Your task to perform on an android device: turn off priority inbox in the gmail app Image 0: 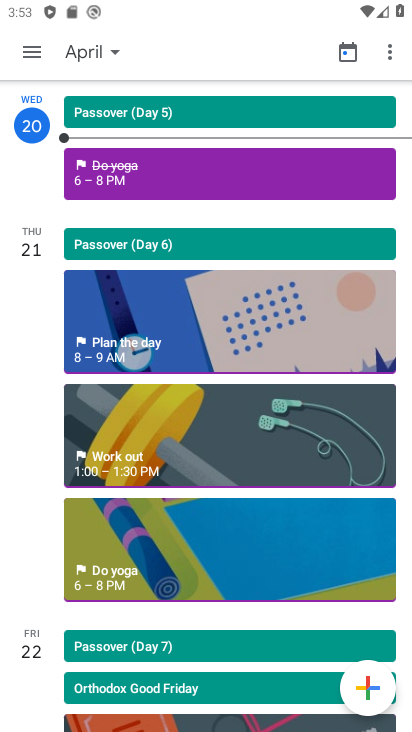
Step 0: press home button
Your task to perform on an android device: turn off priority inbox in the gmail app Image 1: 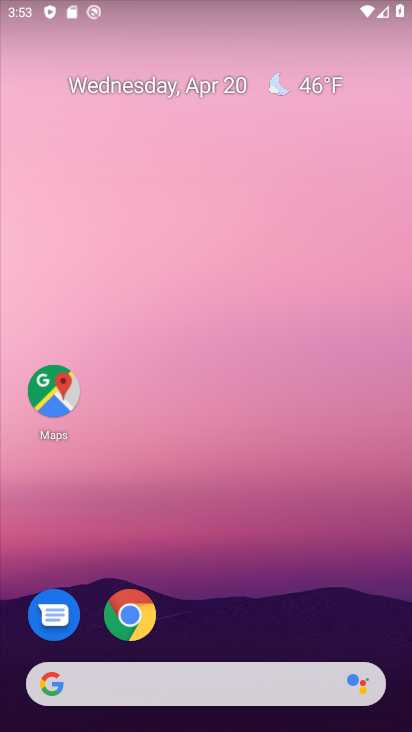
Step 1: drag from (381, 482) to (408, 173)
Your task to perform on an android device: turn off priority inbox in the gmail app Image 2: 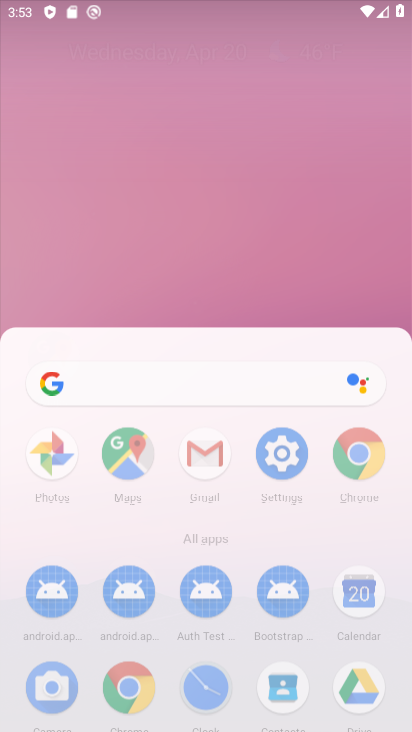
Step 2: drag from (282, 372) to (360, 2)
Your task to perform on an android device: turn off priority inbox in the gmail app Image 3: 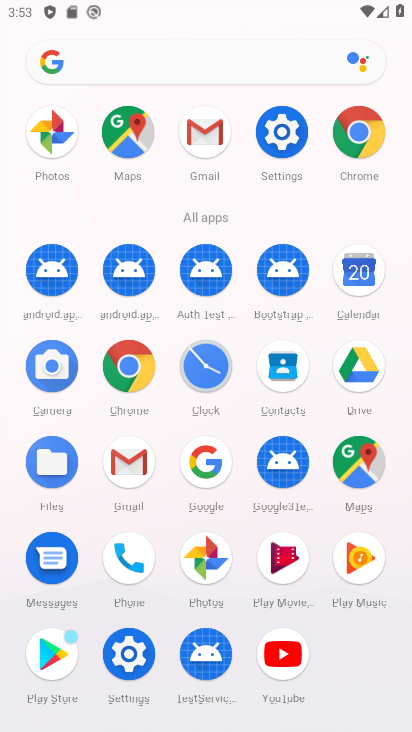
Step 3: click (207, 142)
Your task to perform on an android device: turn off priority inbox in the gmail app Image 4: 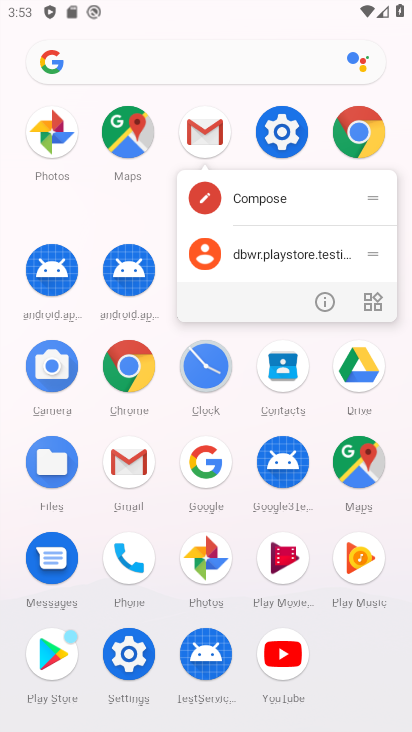
Step 4: click (206, 129)
Your task to perform on an android device: turn off priority inbox in the gmail app Image 5: 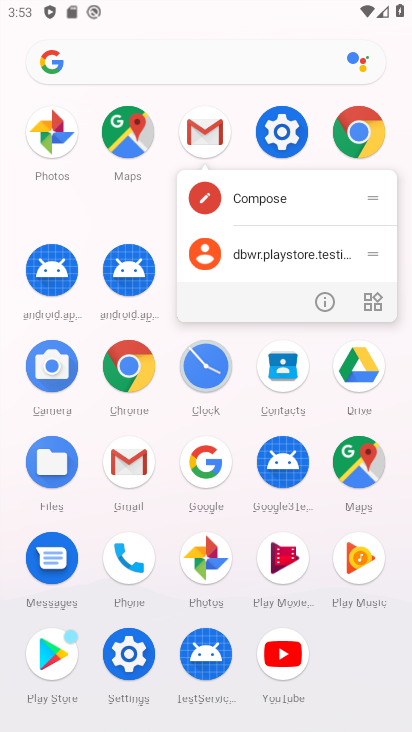
Step 5: click (206, 129)
Your task to perform on an android device: turn off priority inbox in the gmail app Image 6: 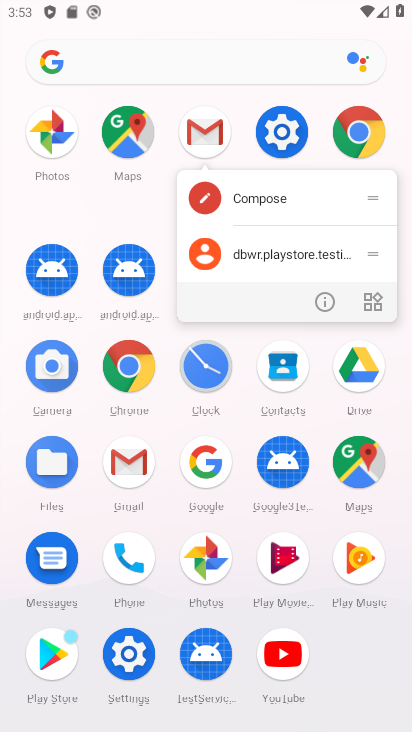
Step 6: click (206, 128)
Your task to perform on an android device: turn off priority inbox in the gmail app Image 7: 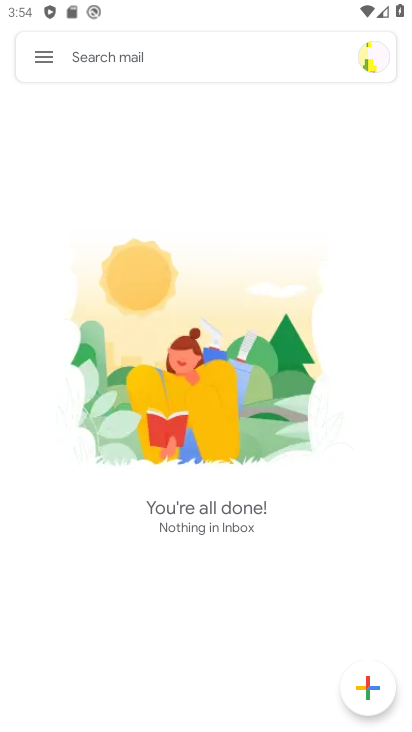
Step 7: click (40, 55)
Your task to perform on an android device: turn off priority inbox in the gmail app Image 8: 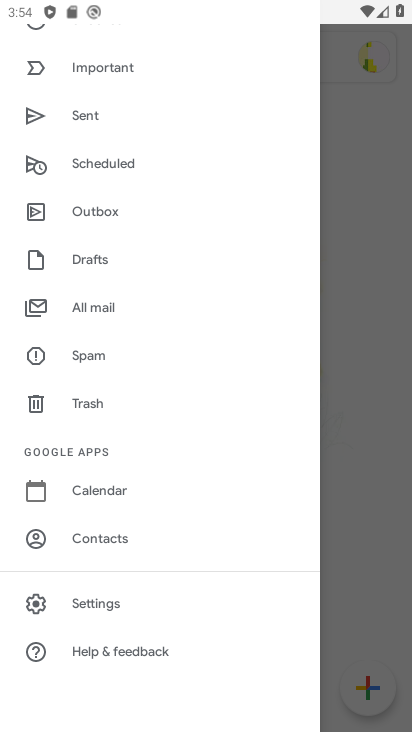
Step 8: click (101, 599)
Your task to perform on an android device: turn off priority inbox in the gmail app Image 9: 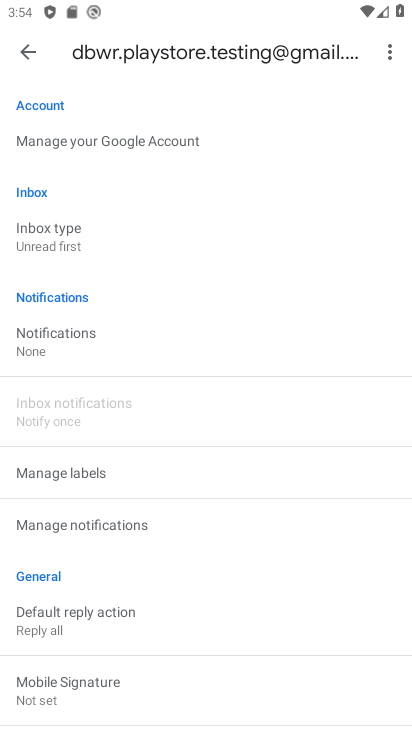
Step 9: drag from (257, 305) to (208, 561)
Your task to perform on an android device: turn off priority inbox in the gmail app Image 10: 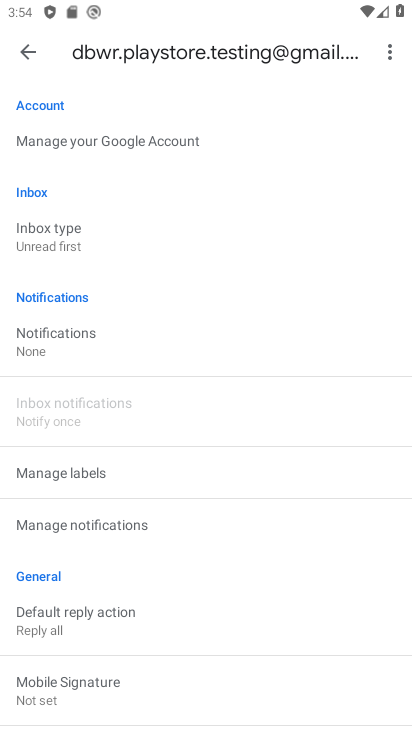
Step 10: click (40, 240)
Your task to perform on an android device: turn off priority inbox in the gmail app Image 11: 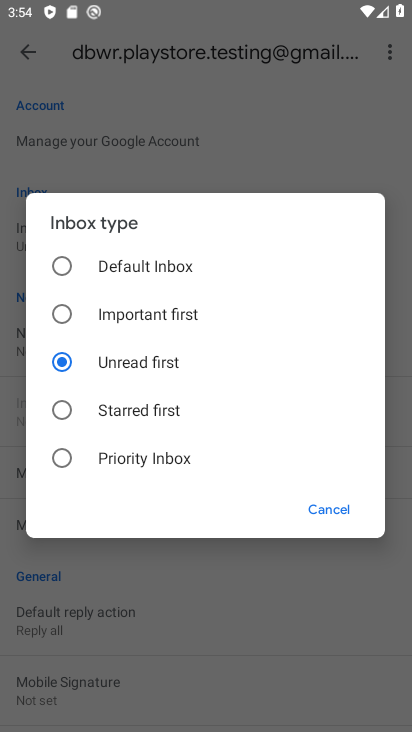
Step 11: task complete